Your task to perform on an android device: Do I have any events tomorrow? Image 0: 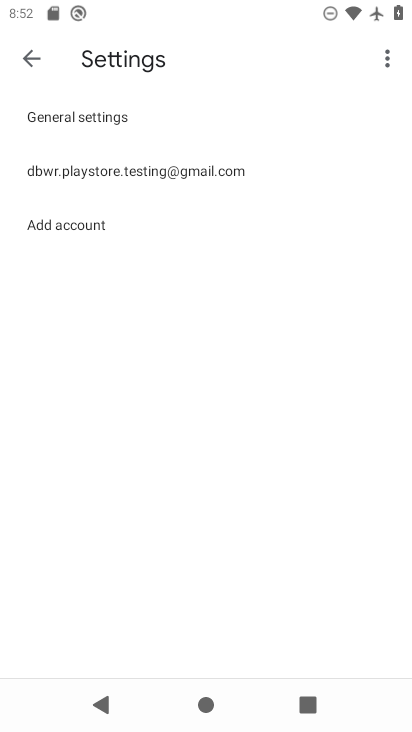
Step 0: press home button
Your task to perform on an android device: Do I have any events tomorrow? Image 1: 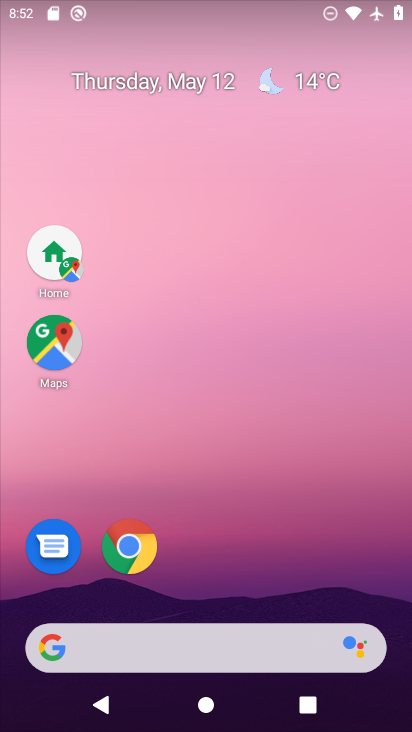
Step 1: drag from (167, 644) to (336, 72)
Your task to perform on an android device: Do I have any events tomorrow? Image 2: 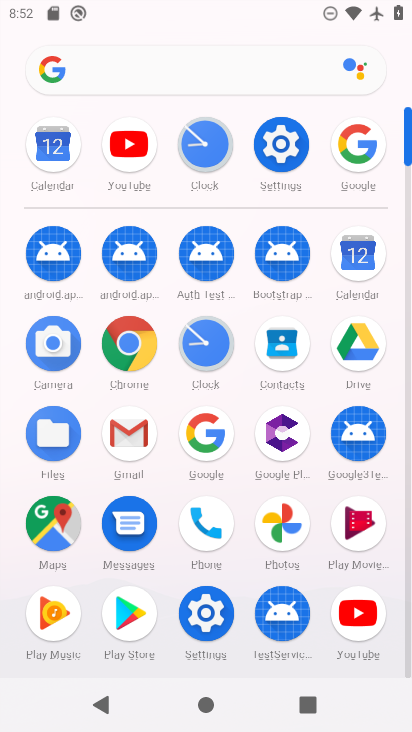
Step 2: click (355, 257)
Your task to perform on an android device: Do I have any events tomorrow? Image 3: 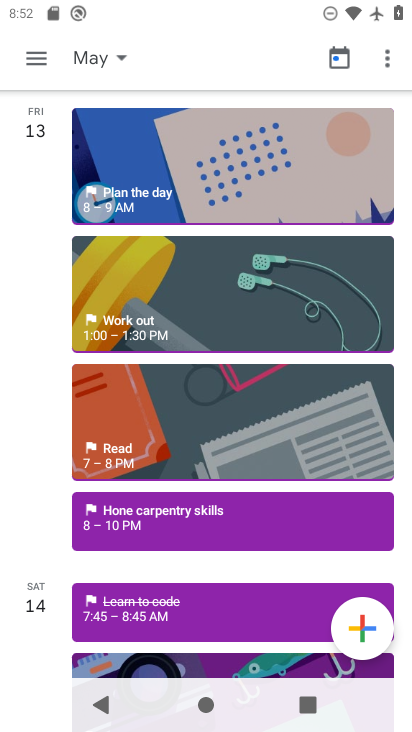
Step 3: drag from (136, 395) to (261, 145)
Your task to perform on an android device: Do I have any events tomorrow? Image 4: 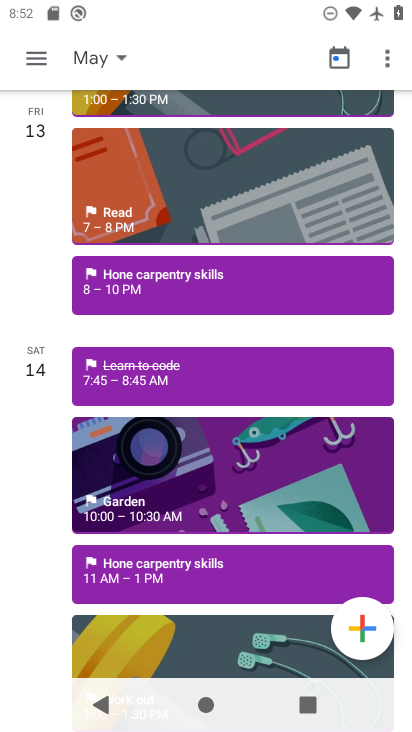
Step 4: click (165, 285)
Your task to perform on an android device: Do I have any events tomorrow? Image 5: 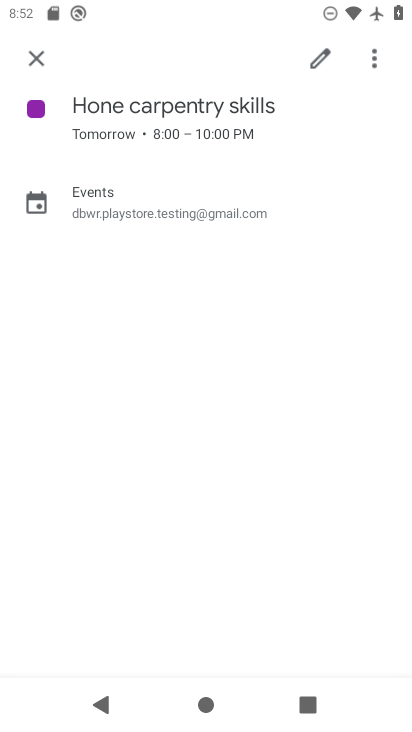
Step 5: task complete